Your task to perform on an android device: Go to Wikipedia Image 0: 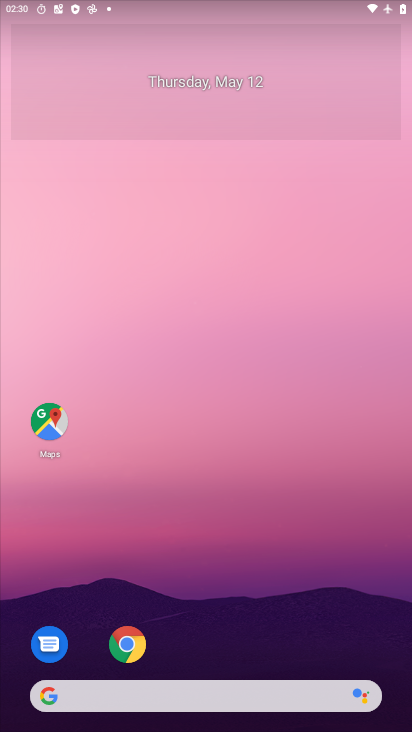
Step 0: click (129, 646)
Your task to perform on an android device: Go to Wikipedia Image 1: 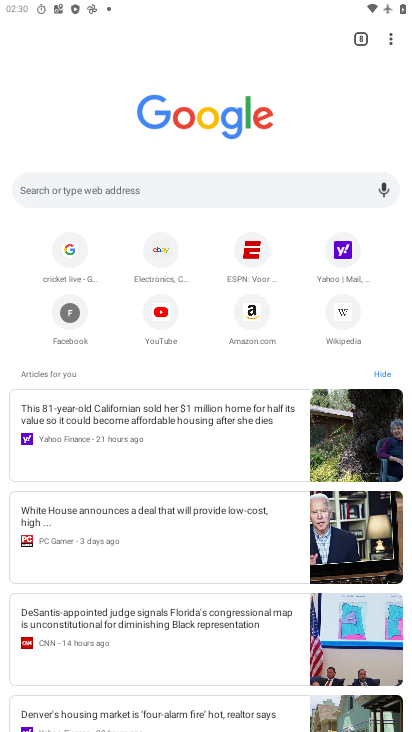
Step 1: click (340, 315)
Your task to perform on an android device: Go to Wikipedia Image 2: 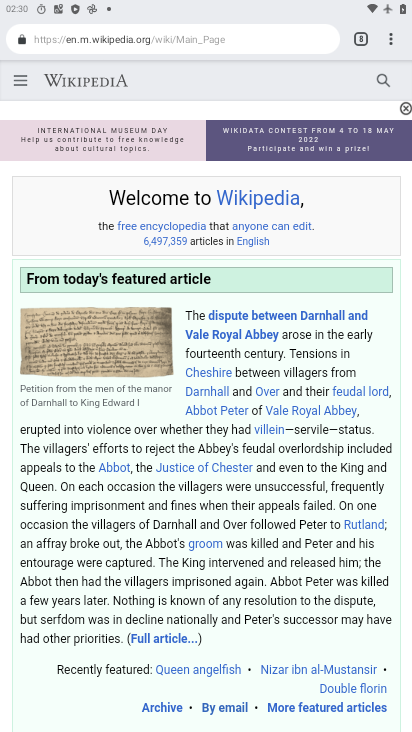
Step 2: task complete